Your task to perform on an android device: Open display settings Image 0: 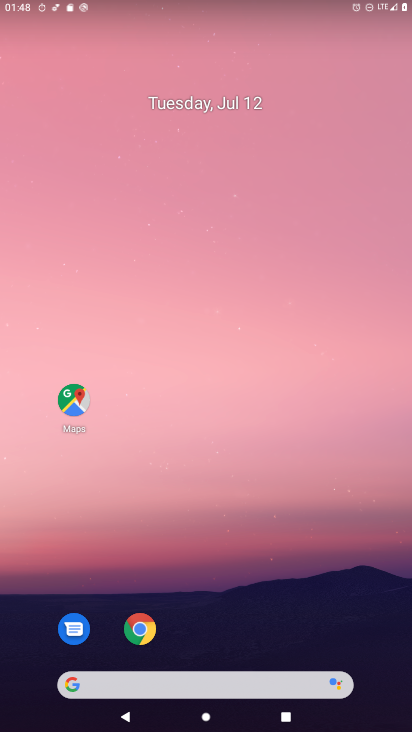
Step 0: drag from (84, 568) to (189, 168)
Your task to perform on an android device: Open display settings Image 1: 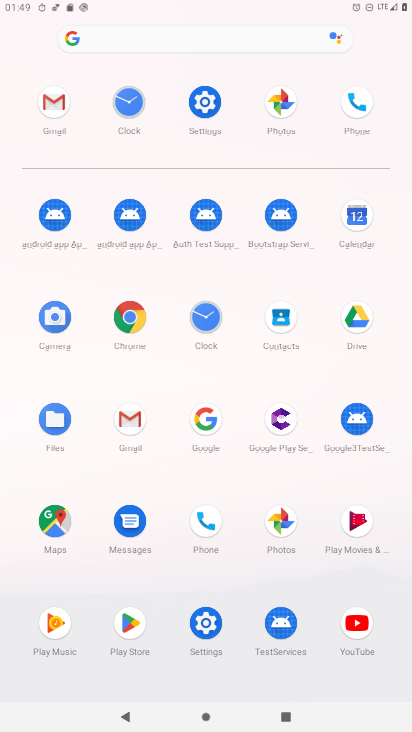
Step 1: click (194, 617)
Your task to perform on an android device: Open display settings Image 2: 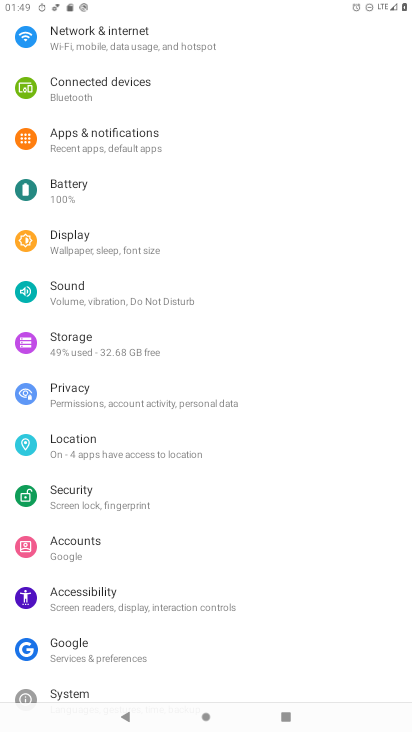
Step 2: click (73, 237)
Your task to perform on an android device: Open display settings Image 3: 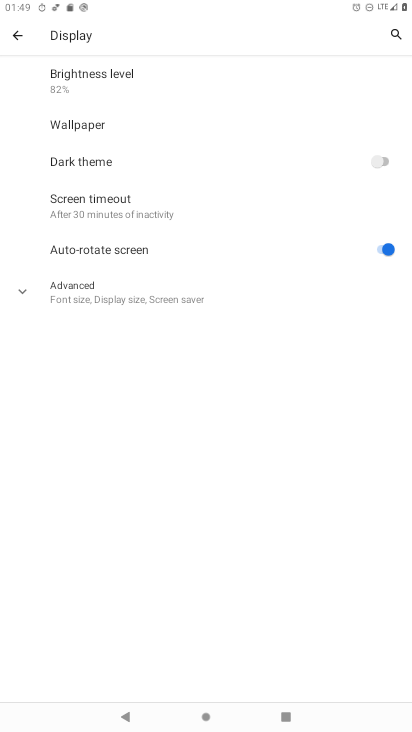
Step 3: task complete